Your task to perform on an android device: Go to battery settings Image 0: 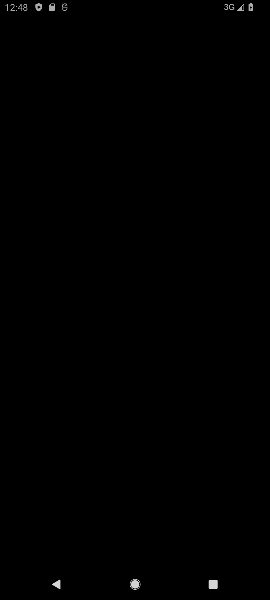
Step 0: press home button
Your task to perform on an android device: Go to battery settings Image 1: 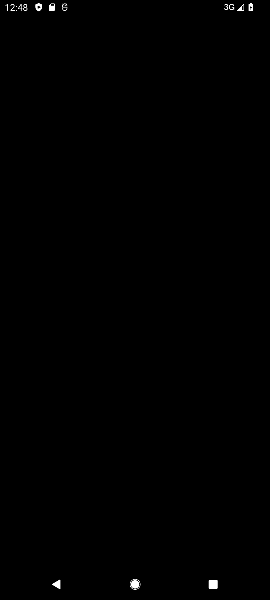
Step 1: press home button
Your task to perform on an android device: Go to battery settings Image 2: 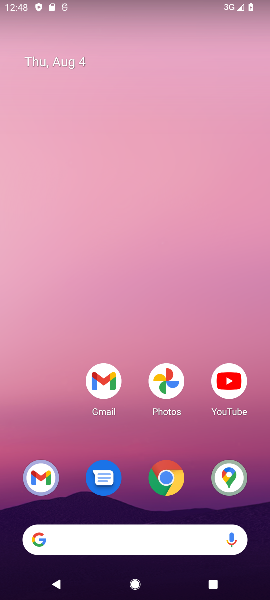
Step 2: press home button
Your task to perform on an android device: Go to battery settings Image 3: 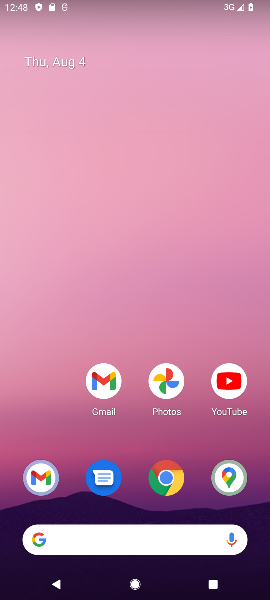
Step 3: press home button
Your task to perform on an android device: Go to battery settings Image 4: 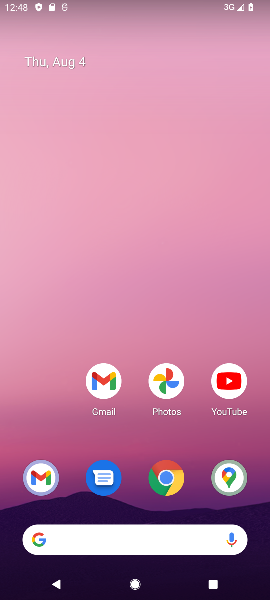
Step 4: press home button
Your task to perform on an android device: Go to battery settings Image 5: 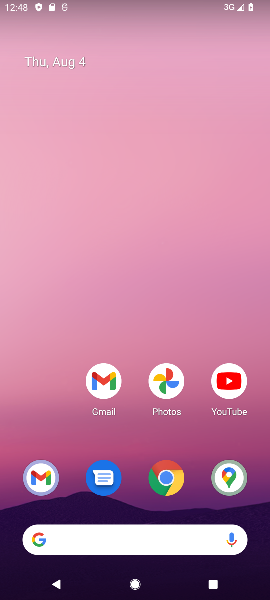
Step 5: drag from (40, 425) to (102, 171)
Your task to perform on an android device: Go to battery settings Image 6: 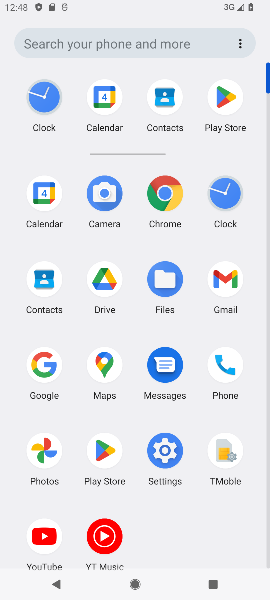
Step 6: click (148, 470)
Your task to perform on an android device: Go to battery settings Image 7: 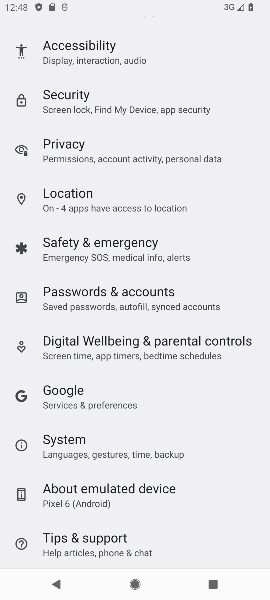
Step 7: drag from (119, 160) to (27, 482)
Your task to perform on an android device: Go to battery settings Image 8: 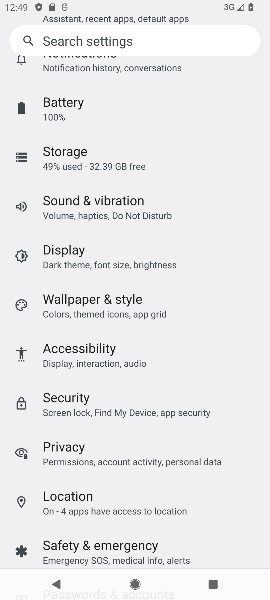
Step 8: click (63, 100)
Your task to perform on an android device: Go to battery settings Image 9: 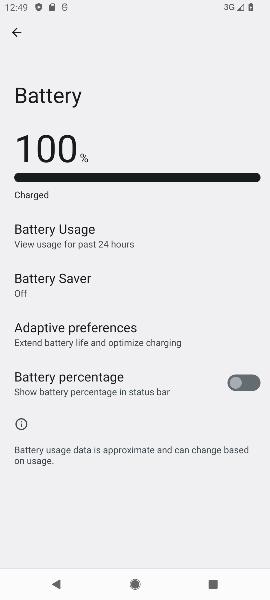
Step 9: task complete